Your task to perform on an android device: Show me the alarms in the clock app Image 0: 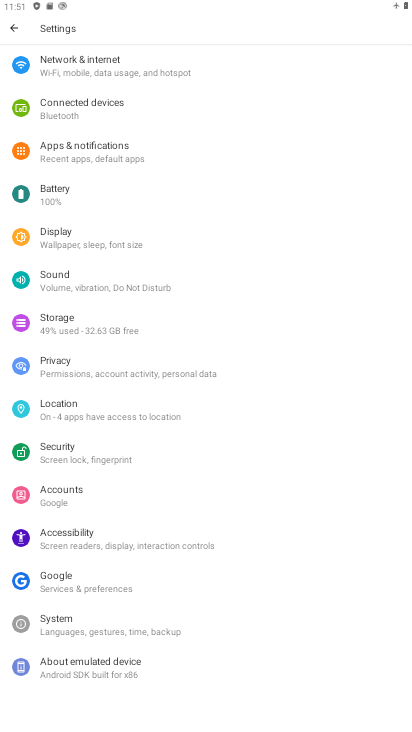
Step 0: drag from (222, 605) to (243, 279)
Your task to perform on an android device: Show me the alarms in the clock app Image 1: 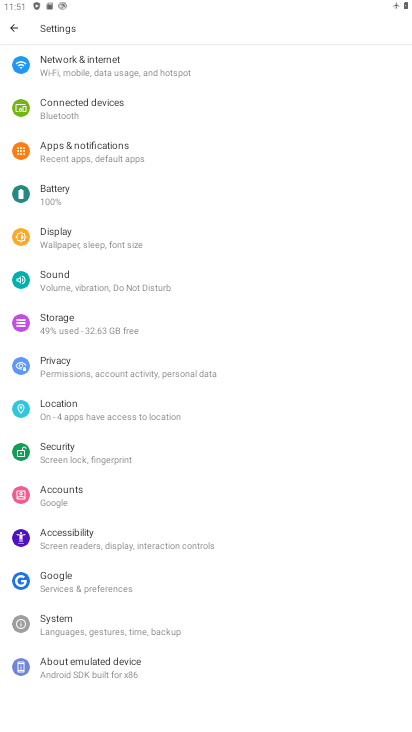
Step 1: click (253, 308)
Your task to perform on an android device: Show me the alarms in the clock app Image 2: 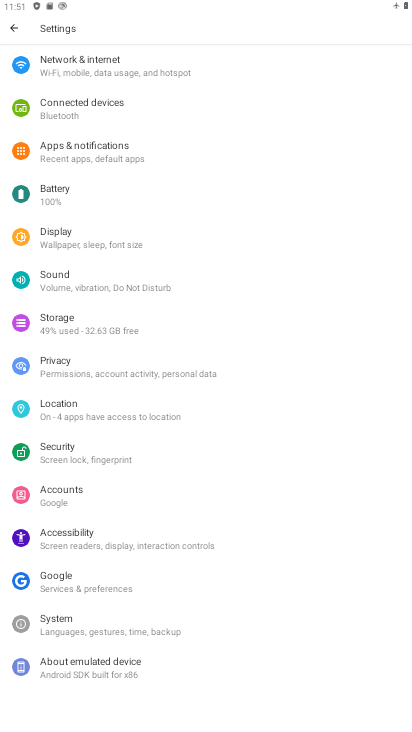
Step 2: press home button
Your task to perform on an android device: Show me the alarms in the clock app Image 3: 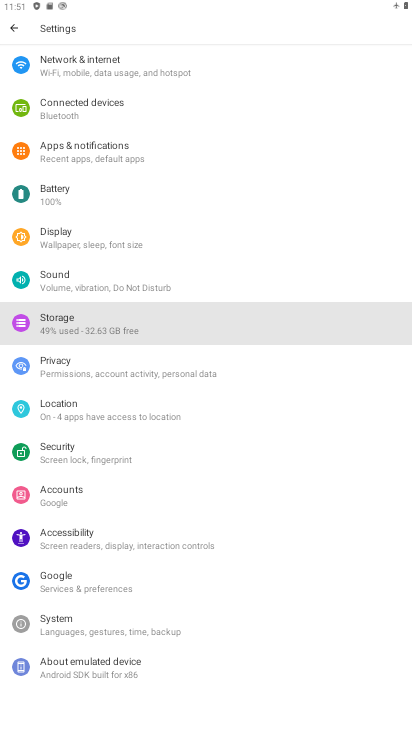
Step 3: drag from (275, 698) to (140, 3)
Your task to perform on an android device: Show me the alarms in the clock app Image 4: 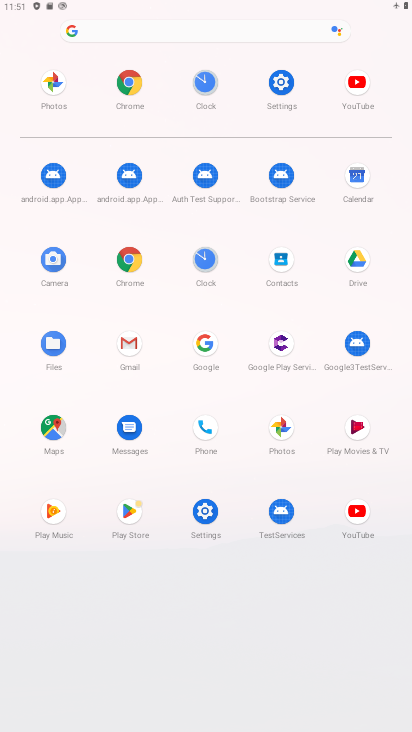
Step 4: drag from (194, 684) to (196, 129)
Your task to perform on an android device: Show me the alarms in the clock app Image 5: 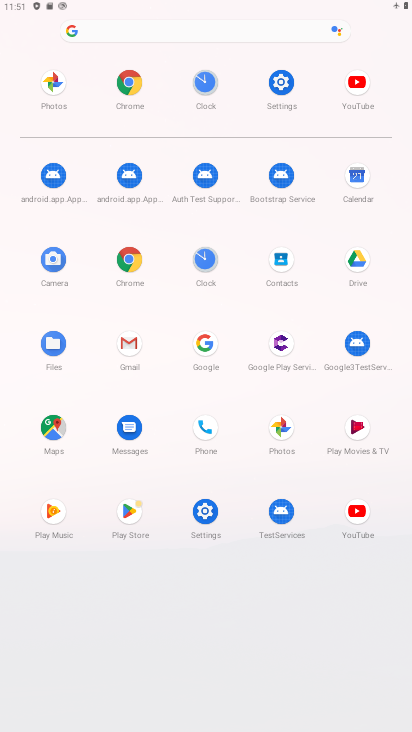
Step 5: click (202, 250)
Your task to perform on an android device: Show me the alarms in the clock app Image 6: 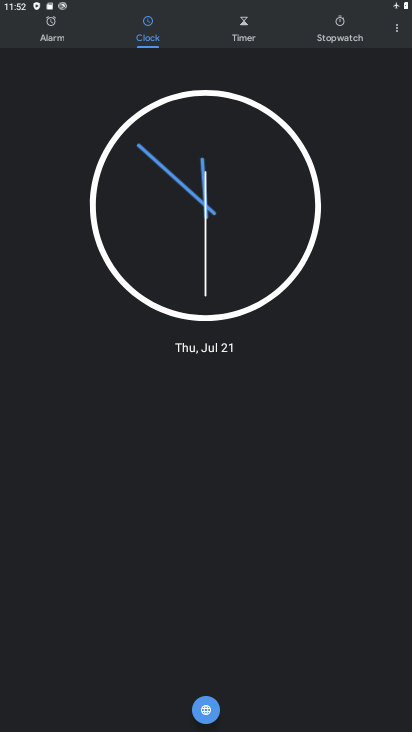
Step 6: drag from (228, 498) to (228, 375)
Your task to perform on an android device: Show me the alarms in the clock app Image 7: 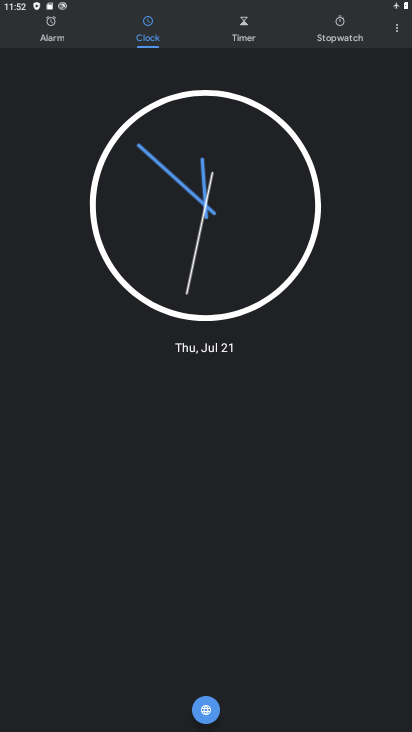
Step 7: drag from (393, 29) to (352, 55)
Your task to perform on an android device: Show me the alarms in the clock app Image 8: 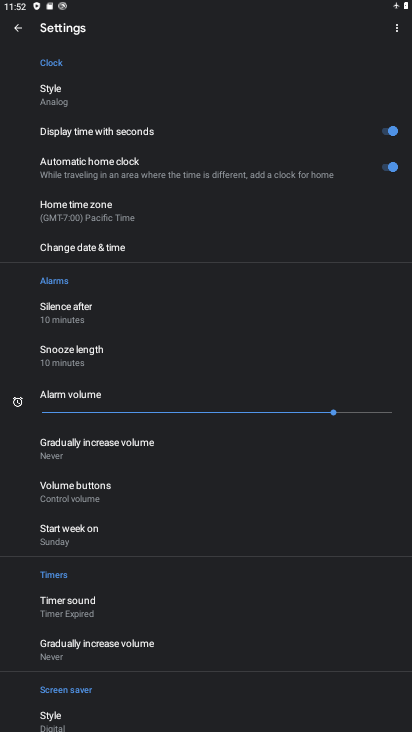
Step 8: drag from (255, 652) to (286, 286)
Your task to perform on an android device: Show me the alarms in the clock app Image 9: 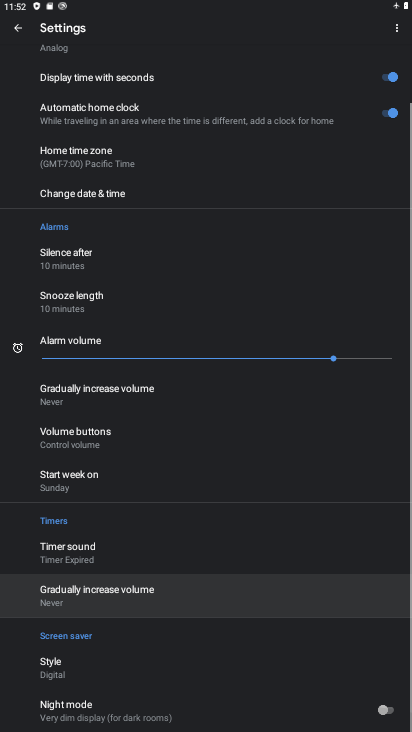
Step 9: drag from (286, 213) to (396, 699)
Your task to perform on an android device: Show me the alarms in the clock app Image 10: 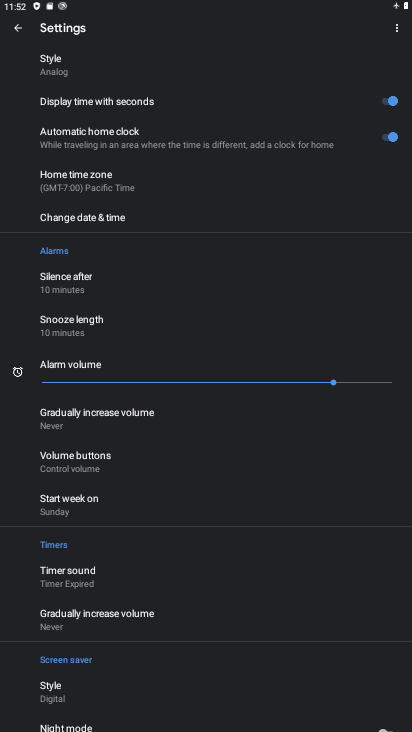
Step 10: click (26, 30)
Your task to perform on an android device: Show me the alarms in the clock app Image 11: 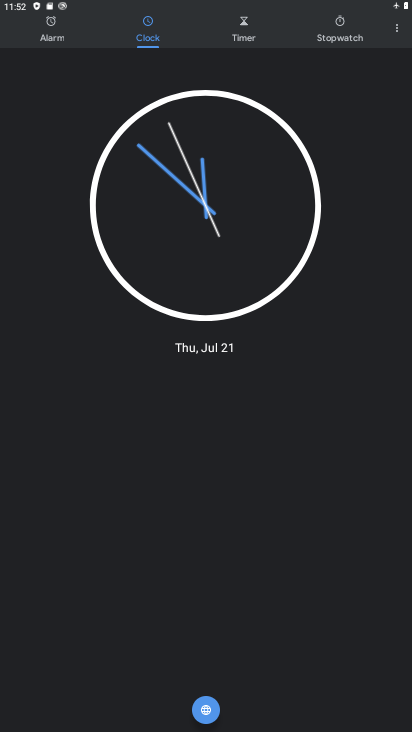
Step 11: click (40, 30)
Your task to perform on an android device: Show me the alarms in the clock app Image 12: 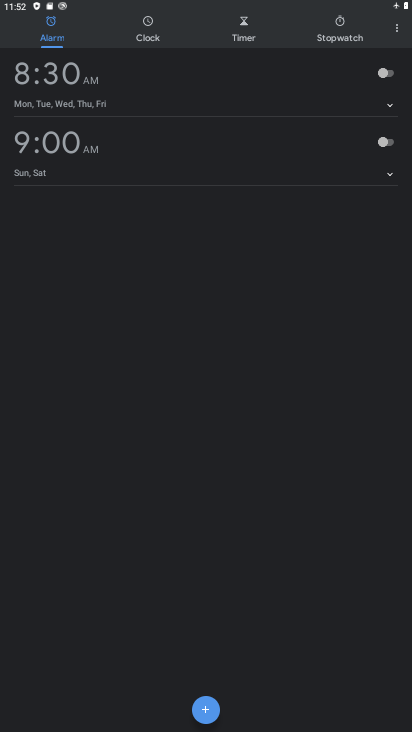
Step 12: task complete